Your task to perform on an android device: Search for sushi restaurants on Maps Image 0: 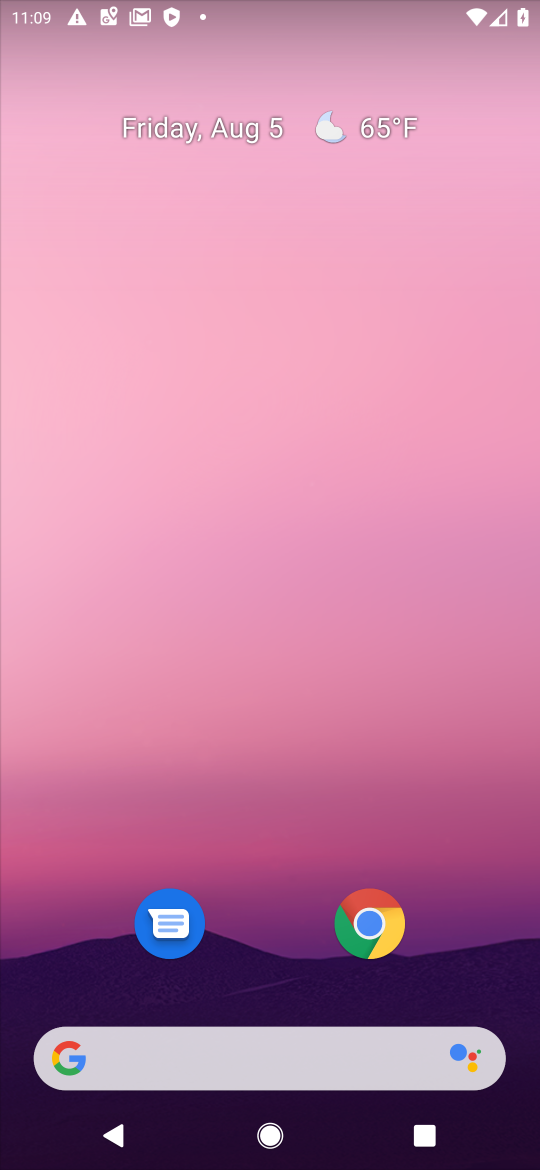
Step 0: drag from (254, 1049) to (300, 68)
Your task to perform on an android device: Search for sushi restaurants on Maps Image 1: 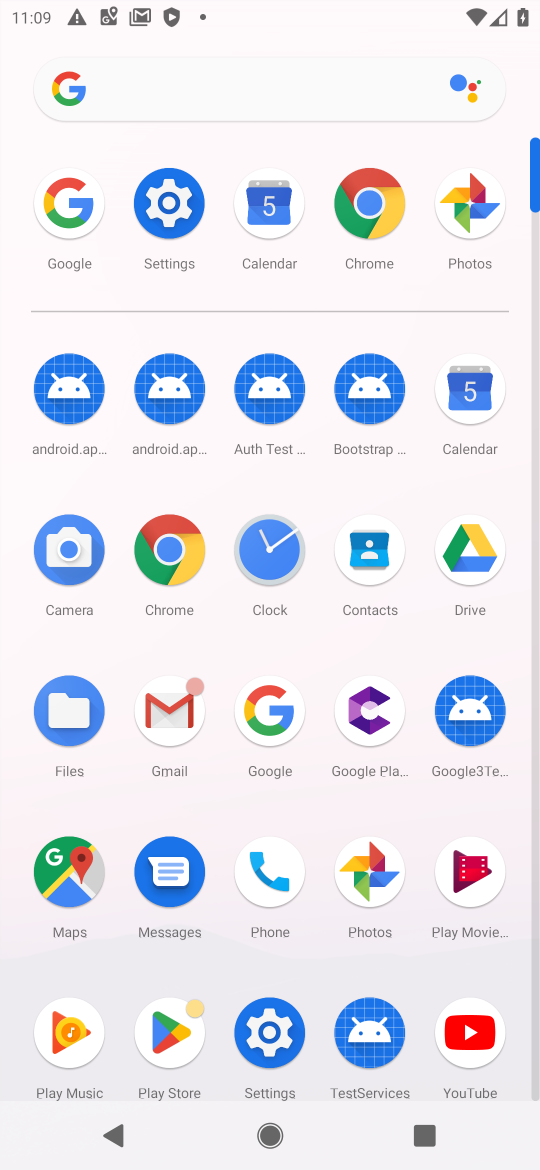
Step 1: click (63, 890)
Your task to perform on an android device: Search for sushi restaurants on Maps Image 2: 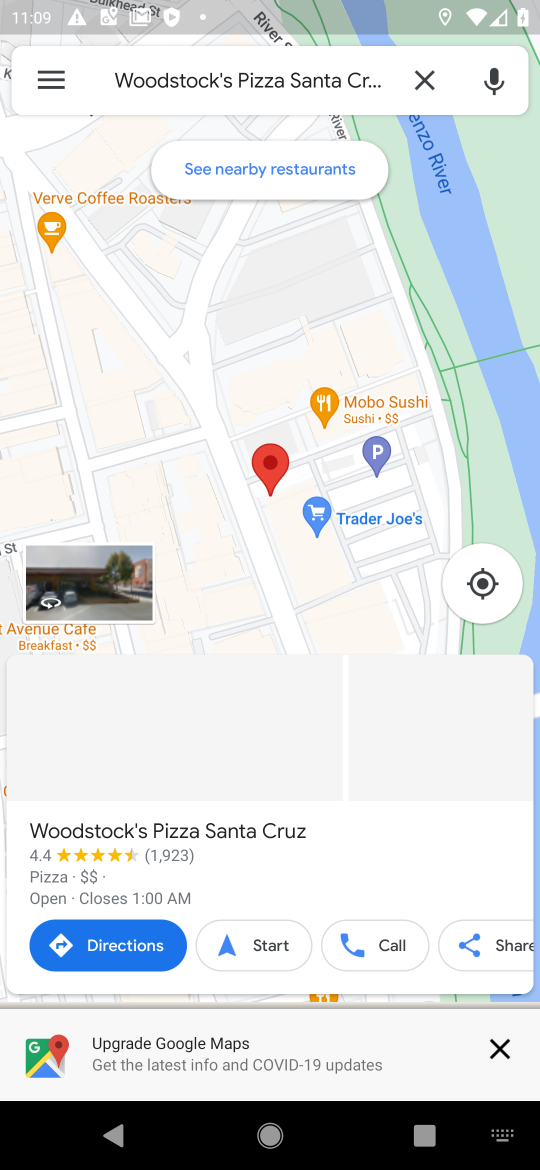
Step 2: click (413, 81)
Your task to perform on an android device: Search for sushi restaurants on Maps Image 3: 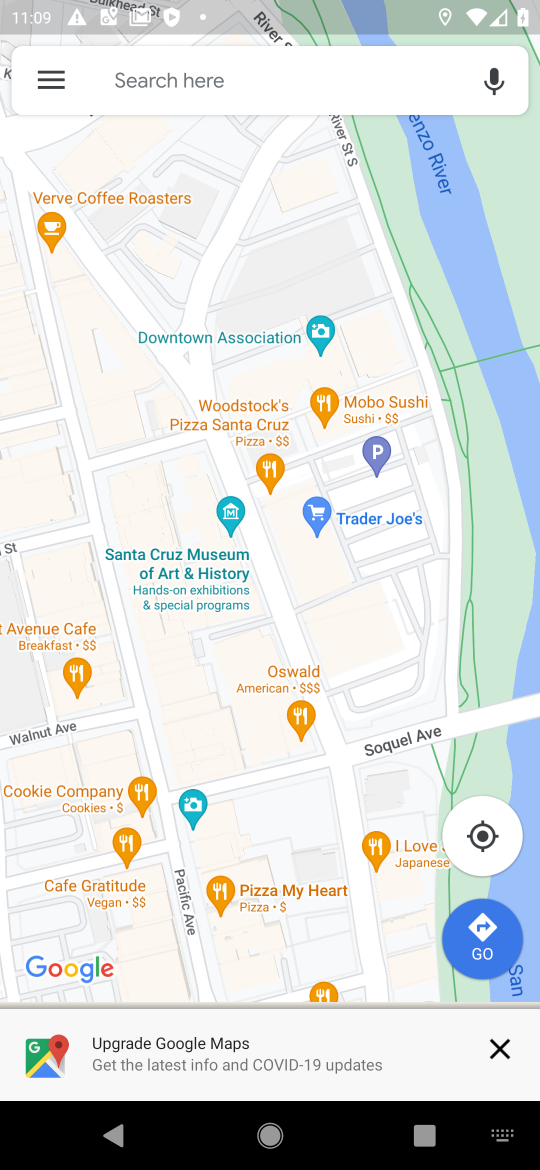
Step 3: click (403, 81)
Your task to perform on an android device: Search for sushi restaurants on Maps Image 4: 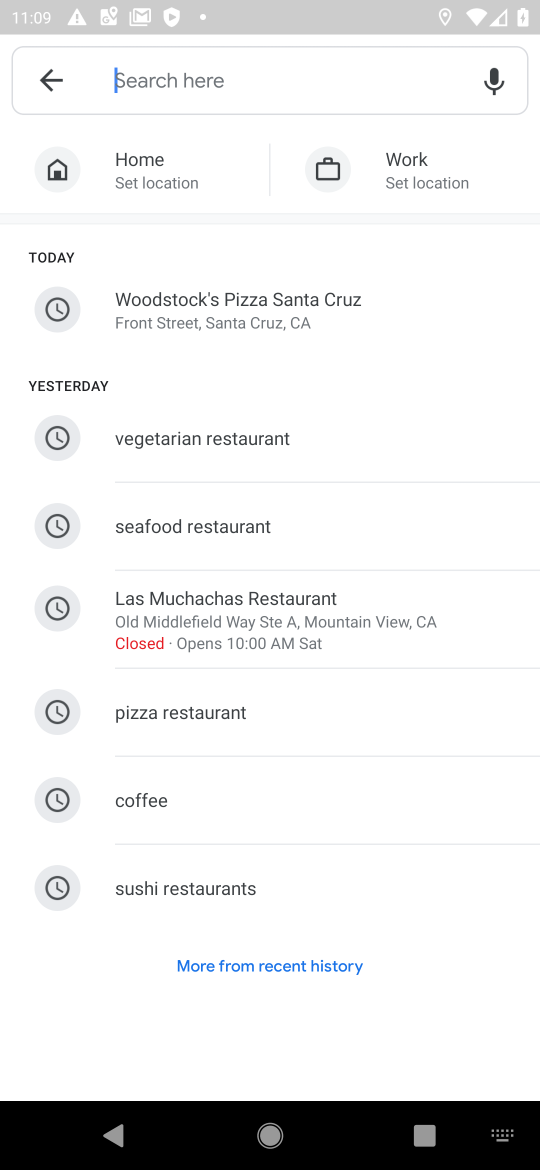
Step 4: click (171, 875)
Your task to perform on an android device: Search for sushi restaurants on Maps Image 5: 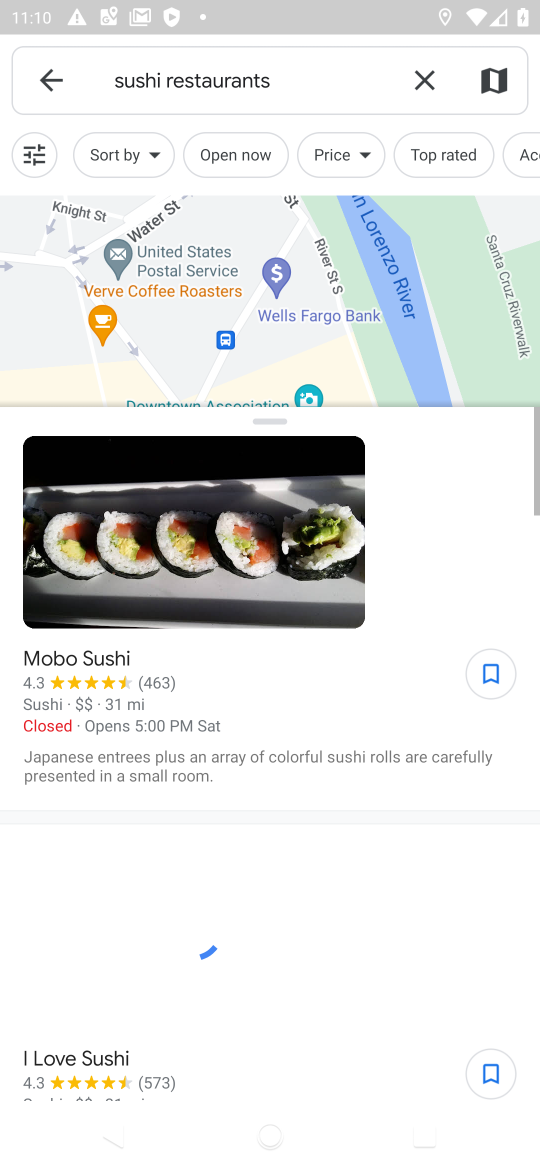
Step 5: task complete